Your task to perform on an android device: toggle priority inbox in the gmail app Image 0: 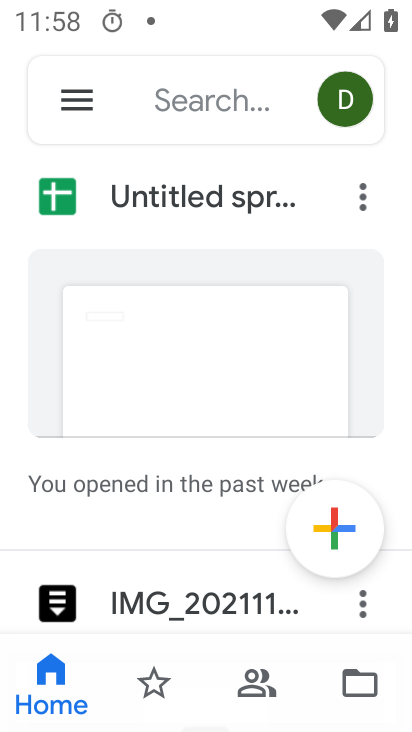
Step 0: press home button
Your task to perform on an android device: toggle priority inbox in the gmail app Image 1: 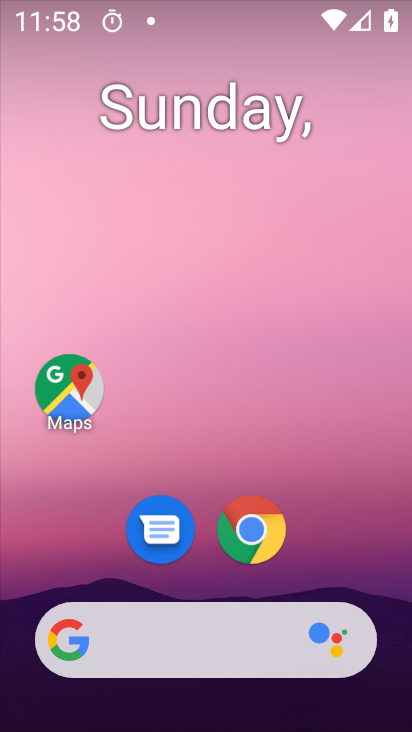
Step 1: drag from (385, 552) to (362, 144)
Your task to perform on an android device: toggle priority inbox in the gmail app Image 2: 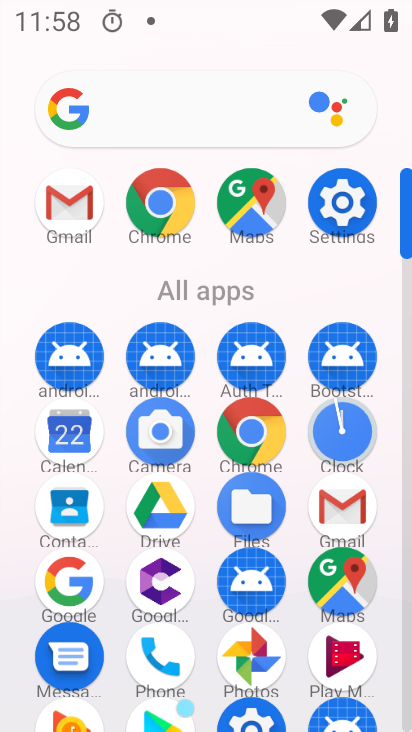
Step 2: click (356, 511)
Your task to perform on an android device: toggle priority inbox in the gmail app Image 3: 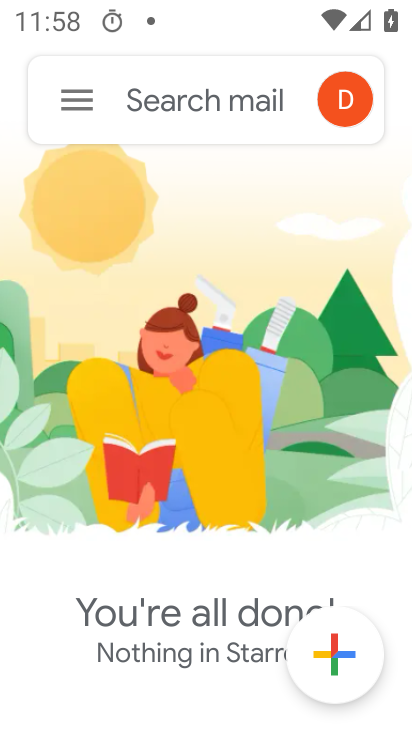
Step 3: click (87, 102)
Your task to perform on an android device: toggle priority inbox in the gmail app Image 4: 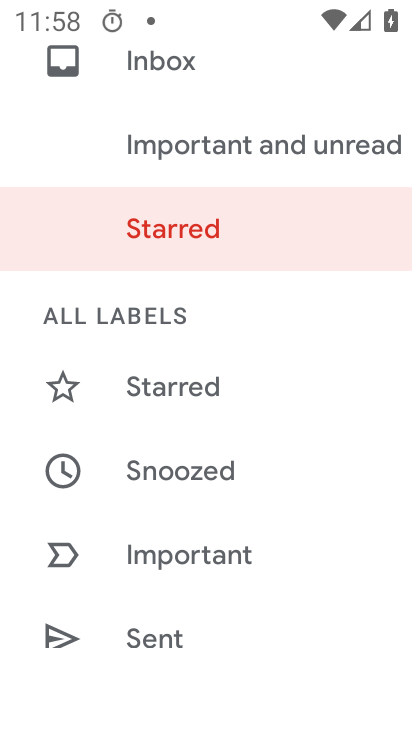
Step 4: drag from (336, 527) to (353, 425)
Your task to perform on an android device: toggle priority inbox in the gmail app Image 5: 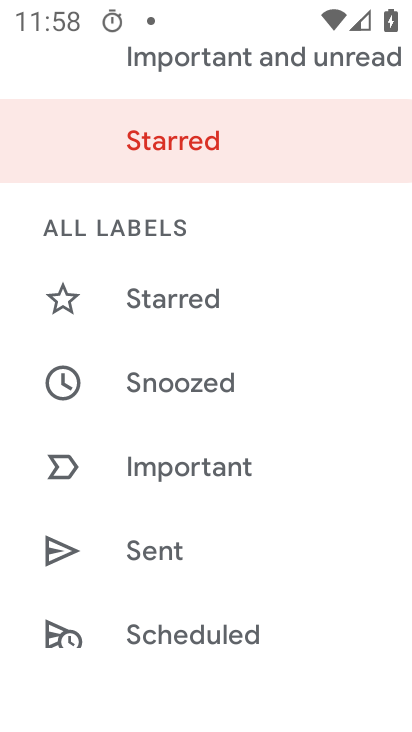
Step 5: drag from (327, 589) to (334, 492)
Your task to perform on an android device: toggle priority inbox in the gmail app Image 6: 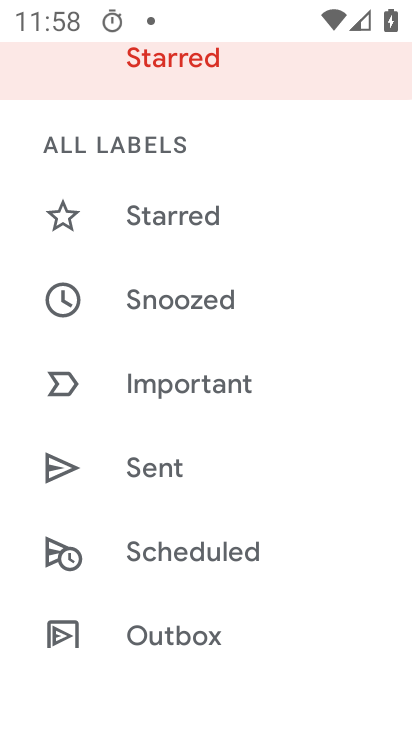
Step 6: drag from (339, 581) to (351, 477)
Your task to perform on an android device: toggle priority inbox in the gmail app Image 7: 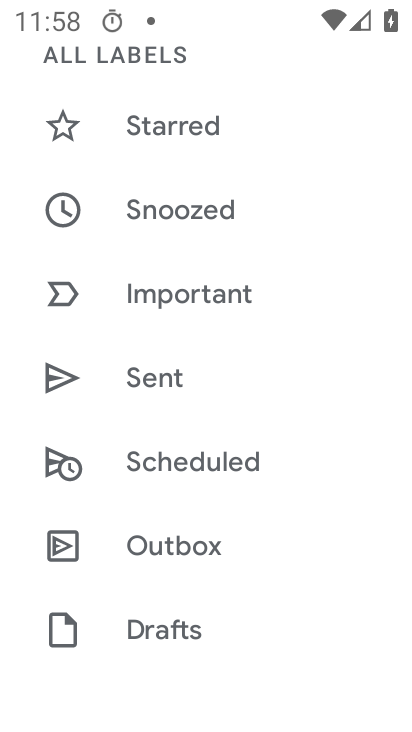
Step 7: drag from (333, 596) to (337, 518)
Your task to perform on an android device: toggle priority inbox in the gmail app Image 8: 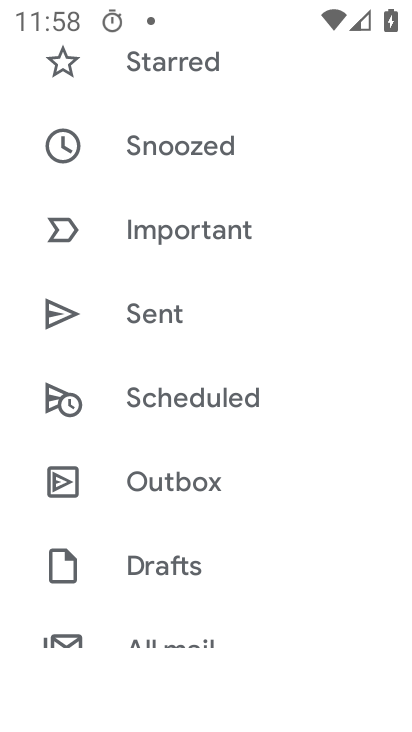
Step 8: drag from (329, 597) to (330, 515)
Your task to perform on an android device: toggle priority inbox in the gmail app Image 9: 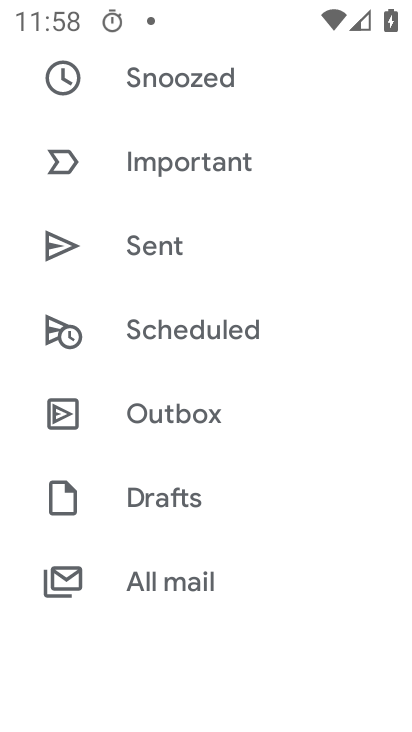
Step 9: drag from (325, 597) to (328, 515)
Your task to perform on an android device: toggle priority inbox in the gmail app Image 10: 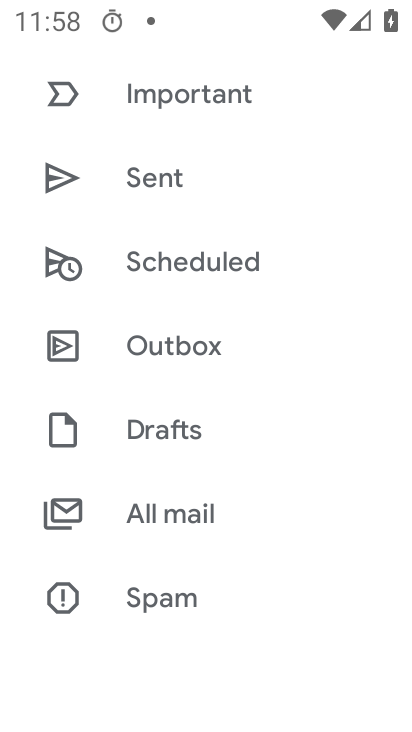
Step 10: drag from (320, 599) to (329, 519)
Your task to perform on an android device: toggle priority inbox in the gmail app Image 11: 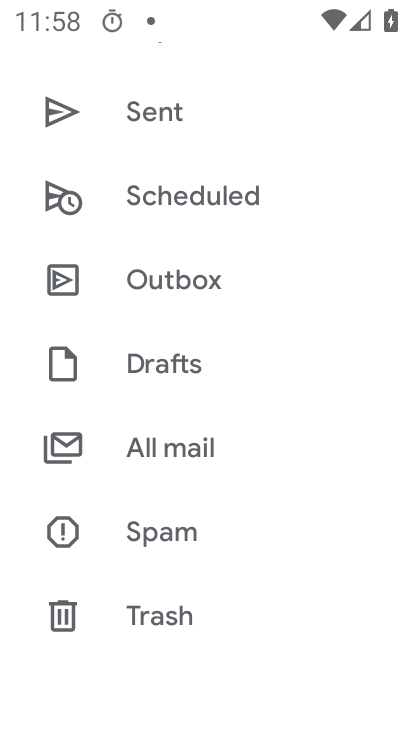
Step 11: drag from (315, 610) to (315, 514)
Your task to perform on an android device: toggle priority inbox in the gmail app Image 12: 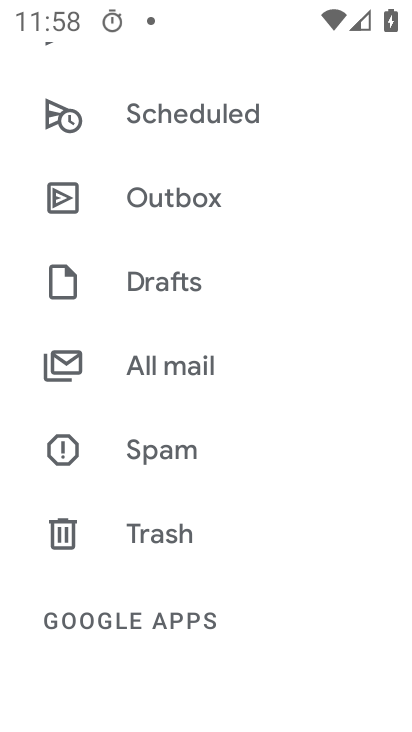
Step 12: drag from (305, 587) to (319, 498)
Your task to perform on an android device: toggle priority inbox in the gmail app Image 13: 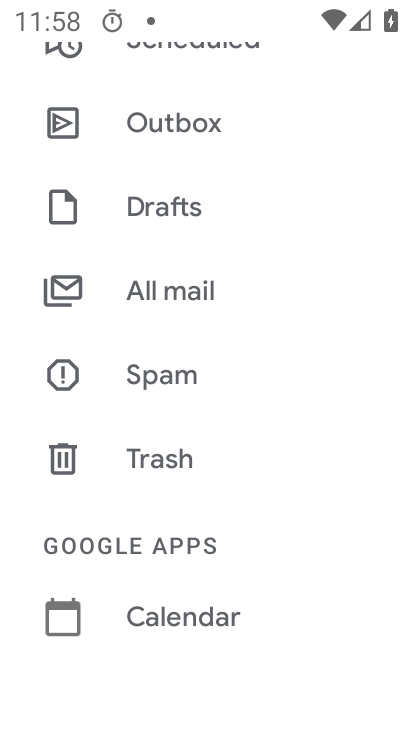
Step 13: drag from (314, 599) to (325, 492)
Your task to perform on an android device: toggle priority inbox in the gmail app Image 14: 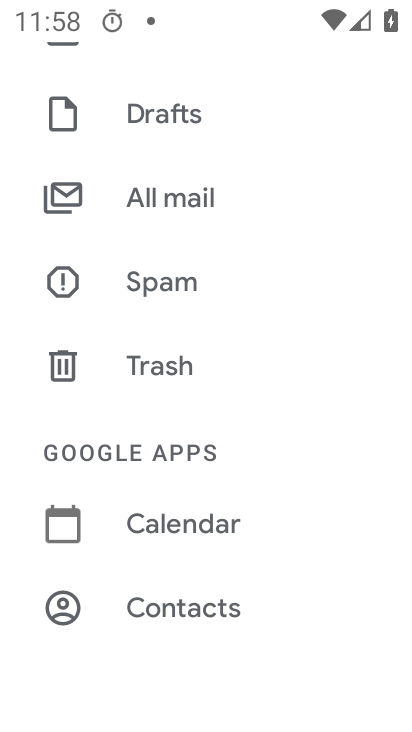
Step 14: drag from (322, 581) to (319, 473)
Your task to perform on an android device: toggle priority inbox in the gmail app Image 15: 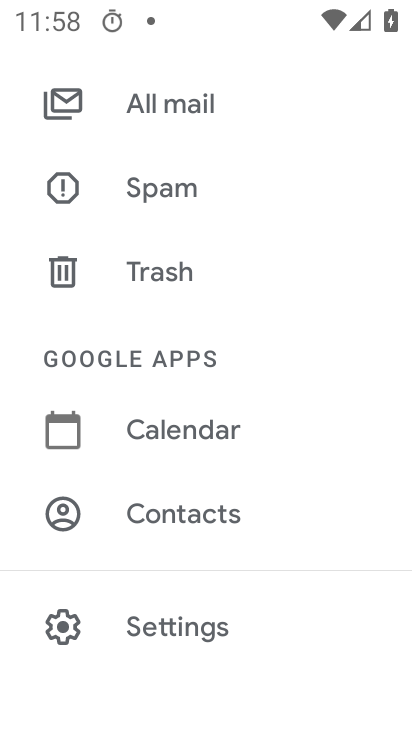
Step 15: drag from (326, 595) to (322, 484)
Your task to perform on an android device: toggle priority inbox in the gmail app Image 16: 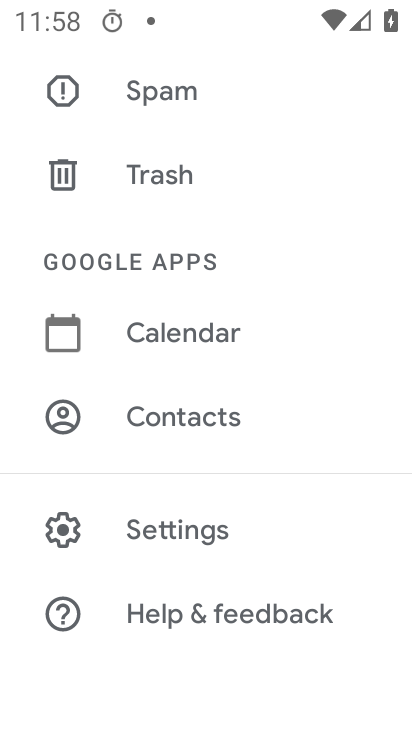
Step 16: click (249, 542)
Your task to perform on an android device: toggle priority inbox in the gmail app Image 17: 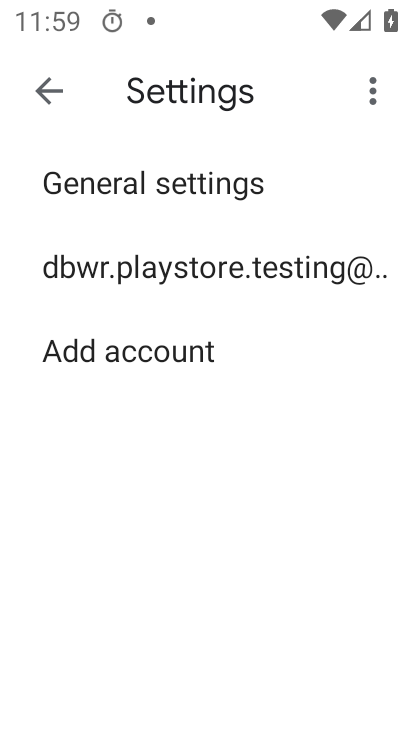
Step 17: click (206, 263)
Your task to perform on an android device: toggle priority inbox in the gmail app Image 18: 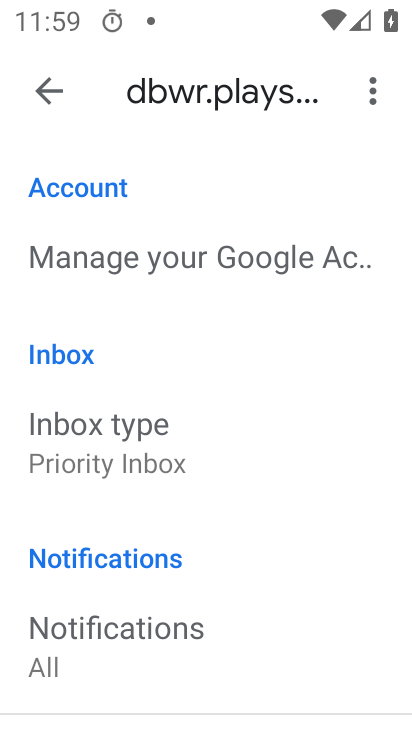
Step 18: task complete